Your task to perform on an android device: toggle airplane mode Image 0: 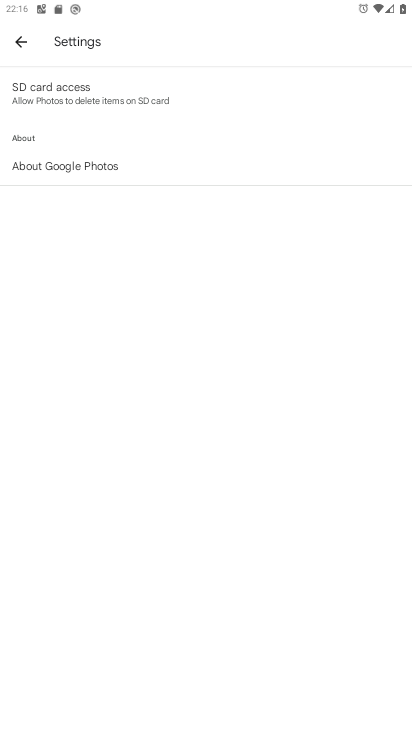
Step 0: press home button
Your task to perform on an android device: toggle airplane mode Image 1: 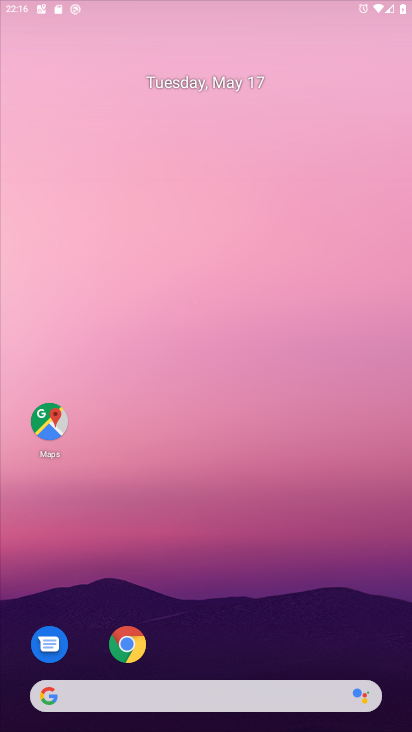
Step 1: drag from (262, 161) to (262, 337)
Your task to perform on an android device: toggle airplane mode Image 2: 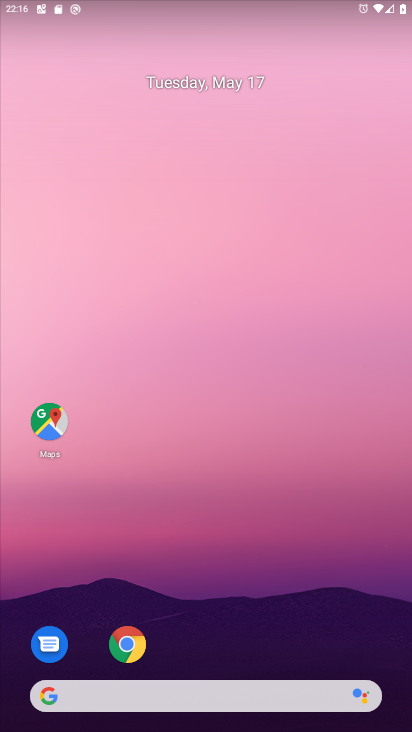
Step 2: drag from (246, 2) to (264, 492)
Your task to perform on an android device: toggle airplane mode Image 3: 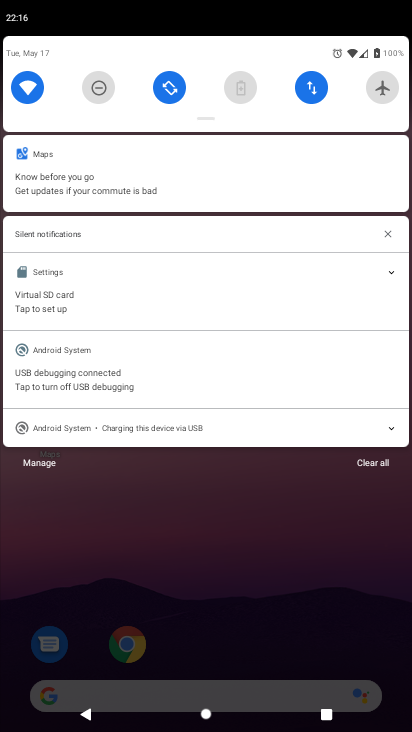
Step 3: click (376, 81)
Your task to perform on an android device: toggle airplane mode Image 4: 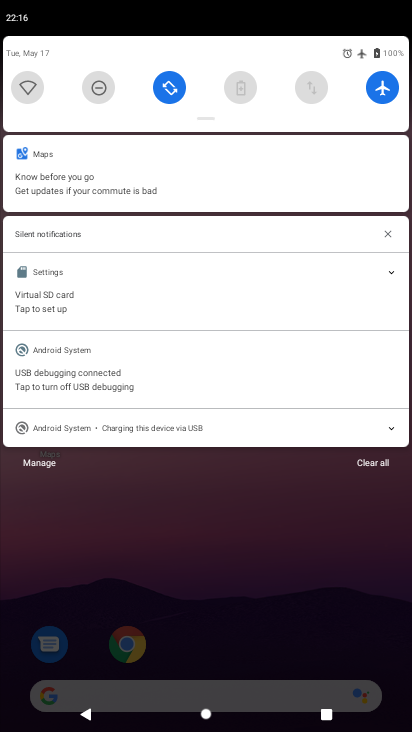
Step 4: task complete